Your task to perform on an android device: turn off wifi Image 0: 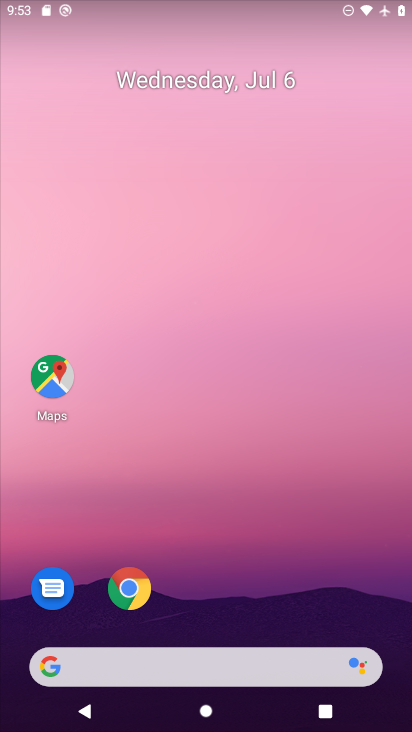
Step 0: drag from (148, 668) to (350, 7)
Your task to perform on an android device: turn off wifi Image 1: 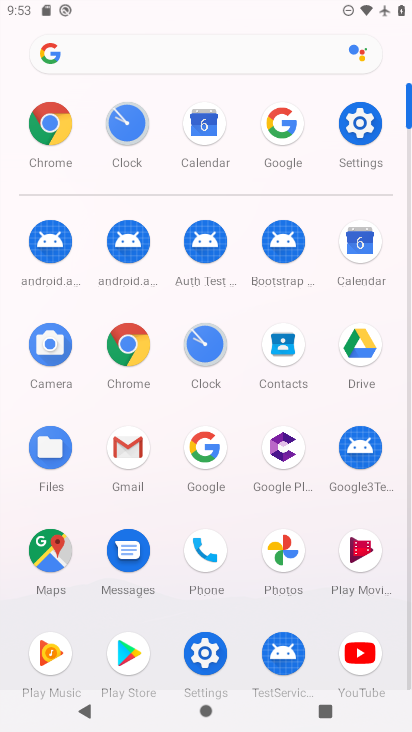
Step 1: click (363, 135)
Your task to perform on an android device: turn off wifi Image 2: 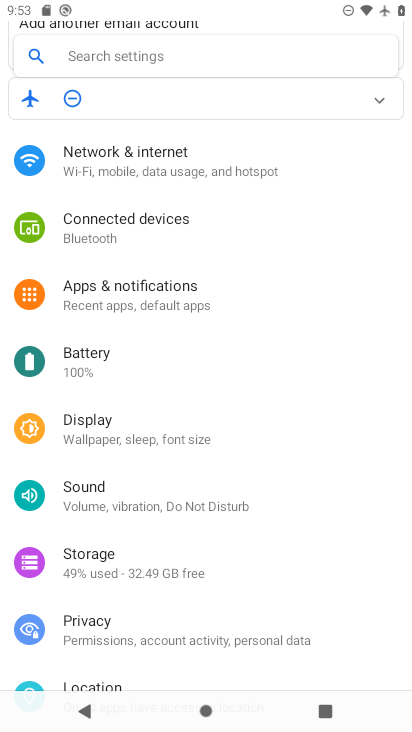
Step 2: click (164, 151)
Your task to perform on an android device: turn off wifi Image 3: 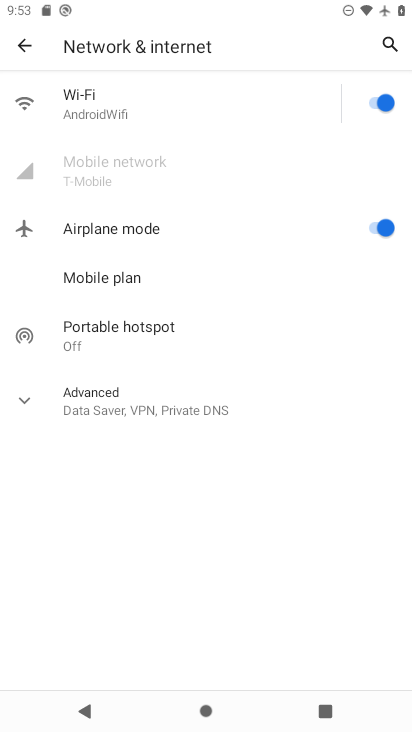
Step 3: click (377, 103)
Your task to perform on an android device: turn off wifi Image 4: 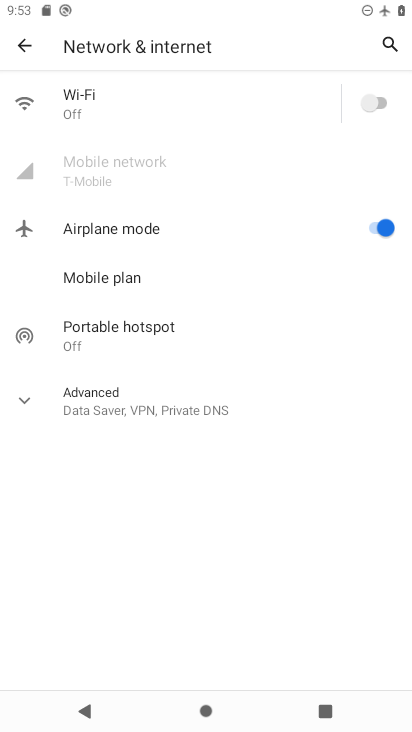
Step 4: task complete